Your task to perform on an android device: toggle priority inbox in the gmail app Image 0: 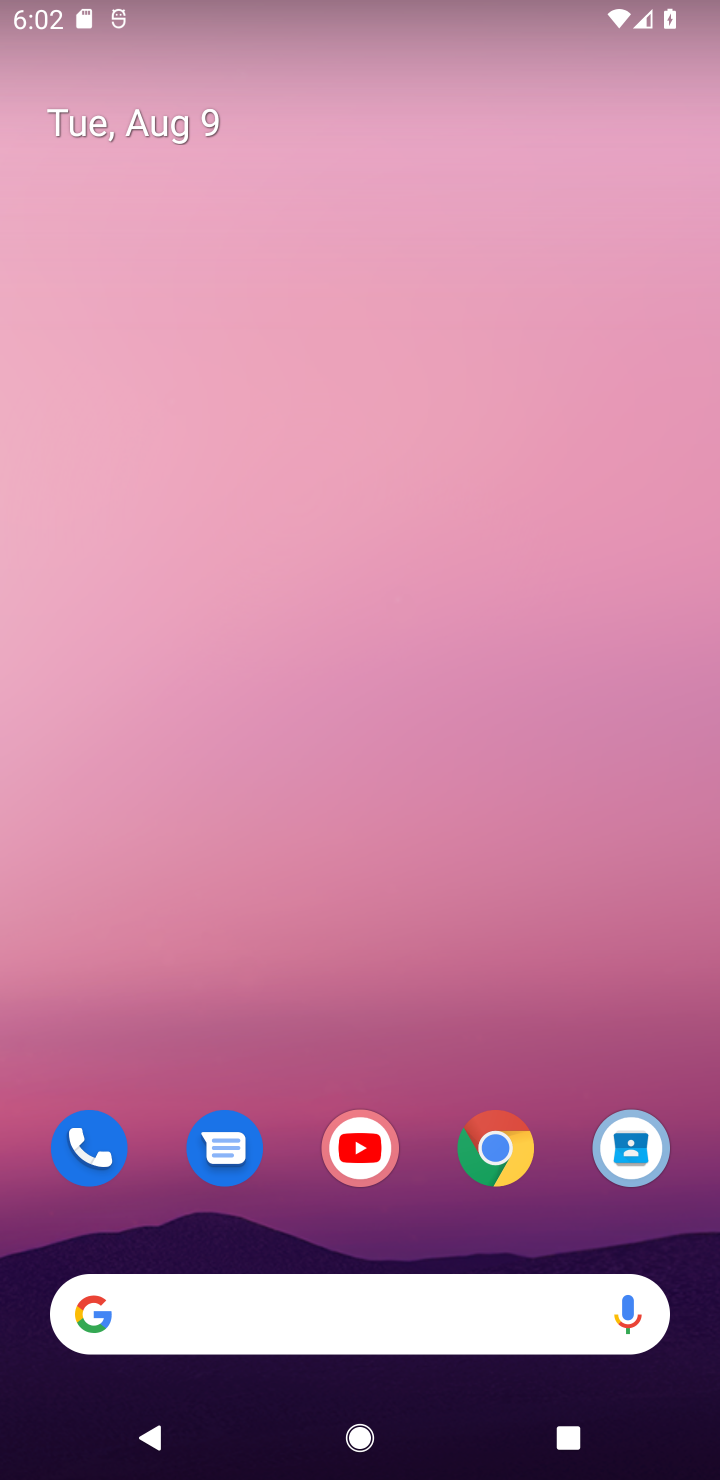
Step 0: drag from (278, 1250) to (582, 1)
Your task to perform on an android device: toggle priority inbox in the gmail app Image 1: 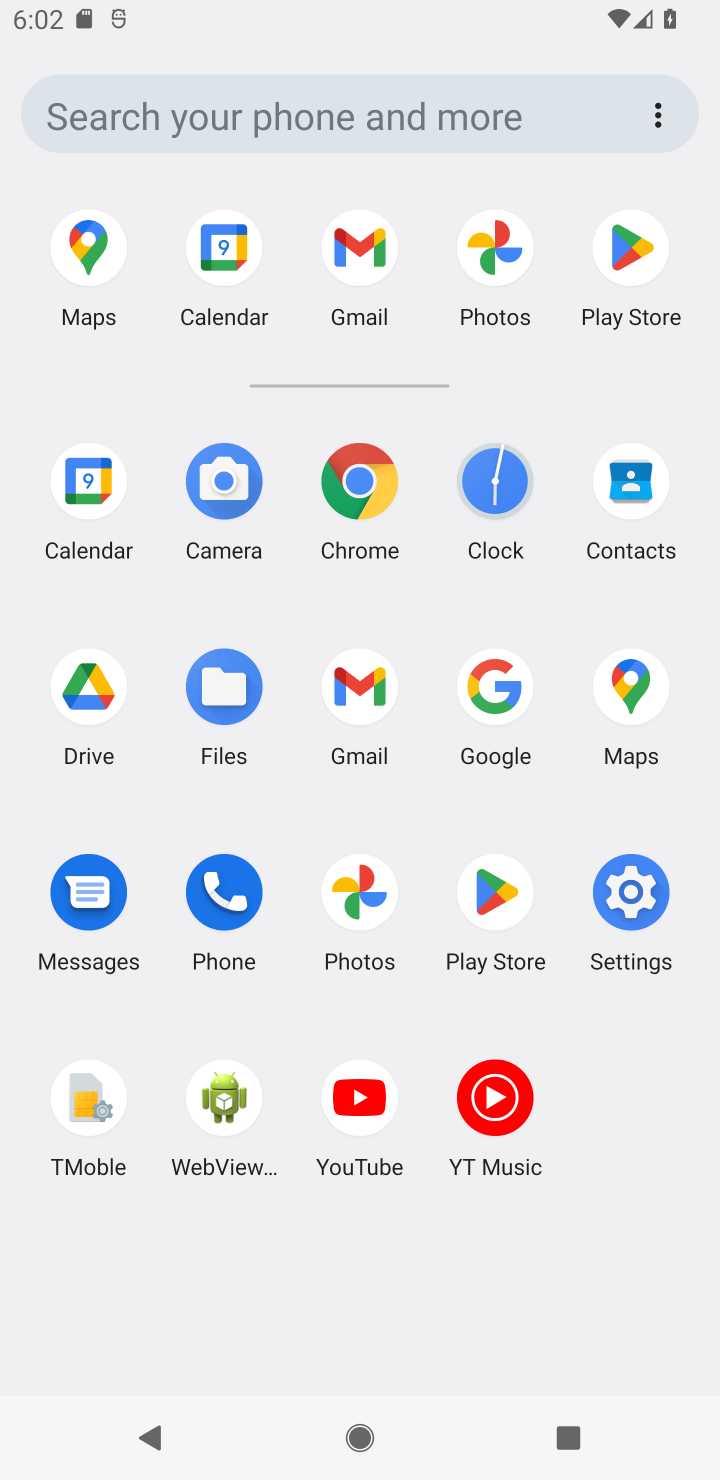
Step 1: click (359, 709)
Your task to perform on an android device: toggle priority inbox in the gmail app Image 2: 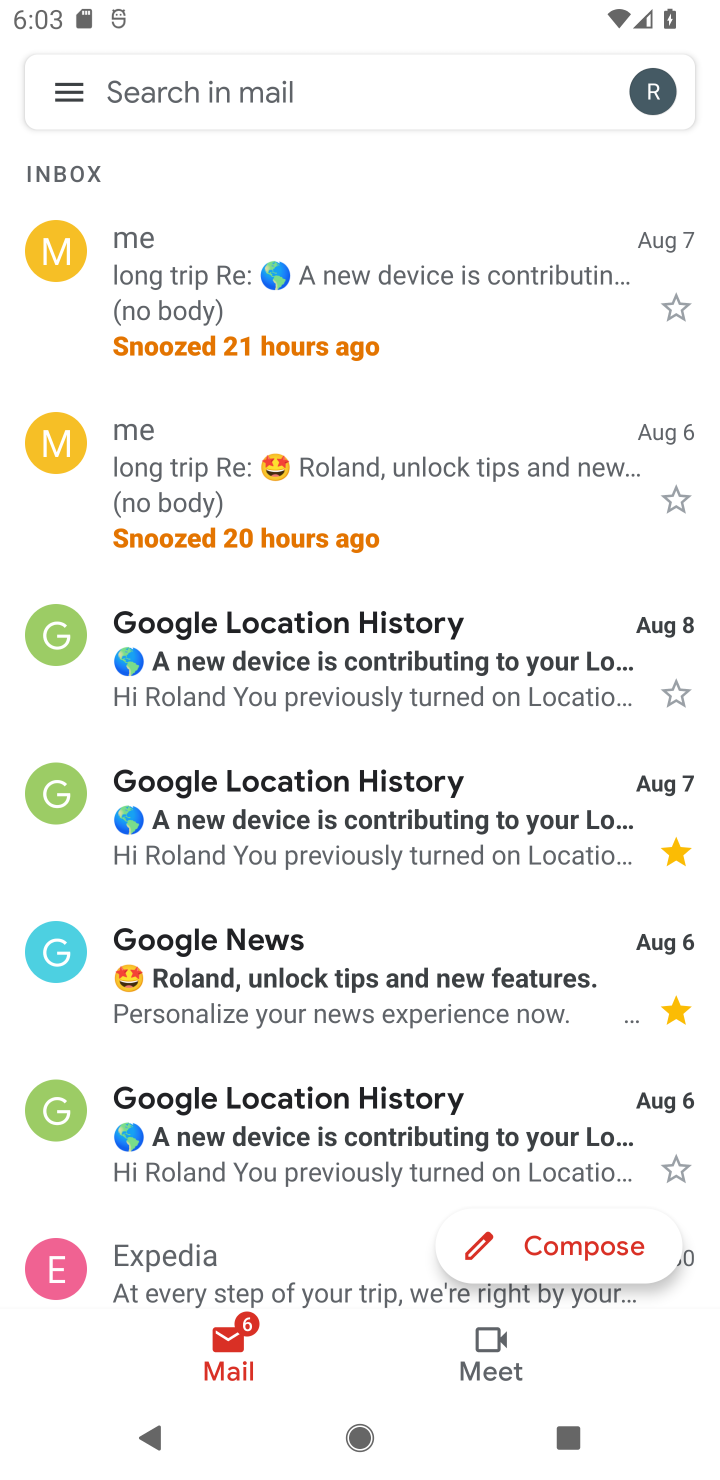
Step 2: click (87, 97)
Your task to perform on an android device: toggle priority inbox in the gmail app Image 3: 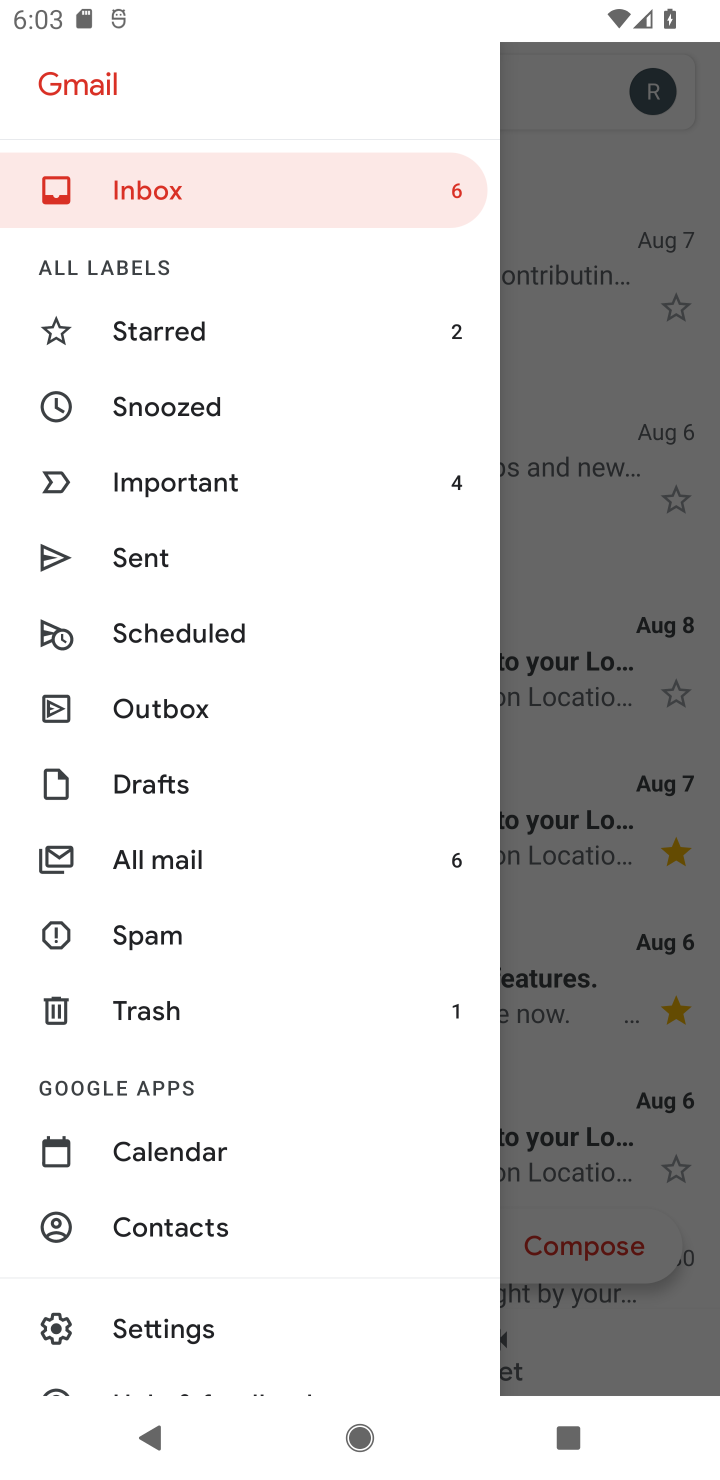
Step 3: click (142, 1322)
Your task to perform on an android device: toggle priority inbox in the gmail app Image 4: 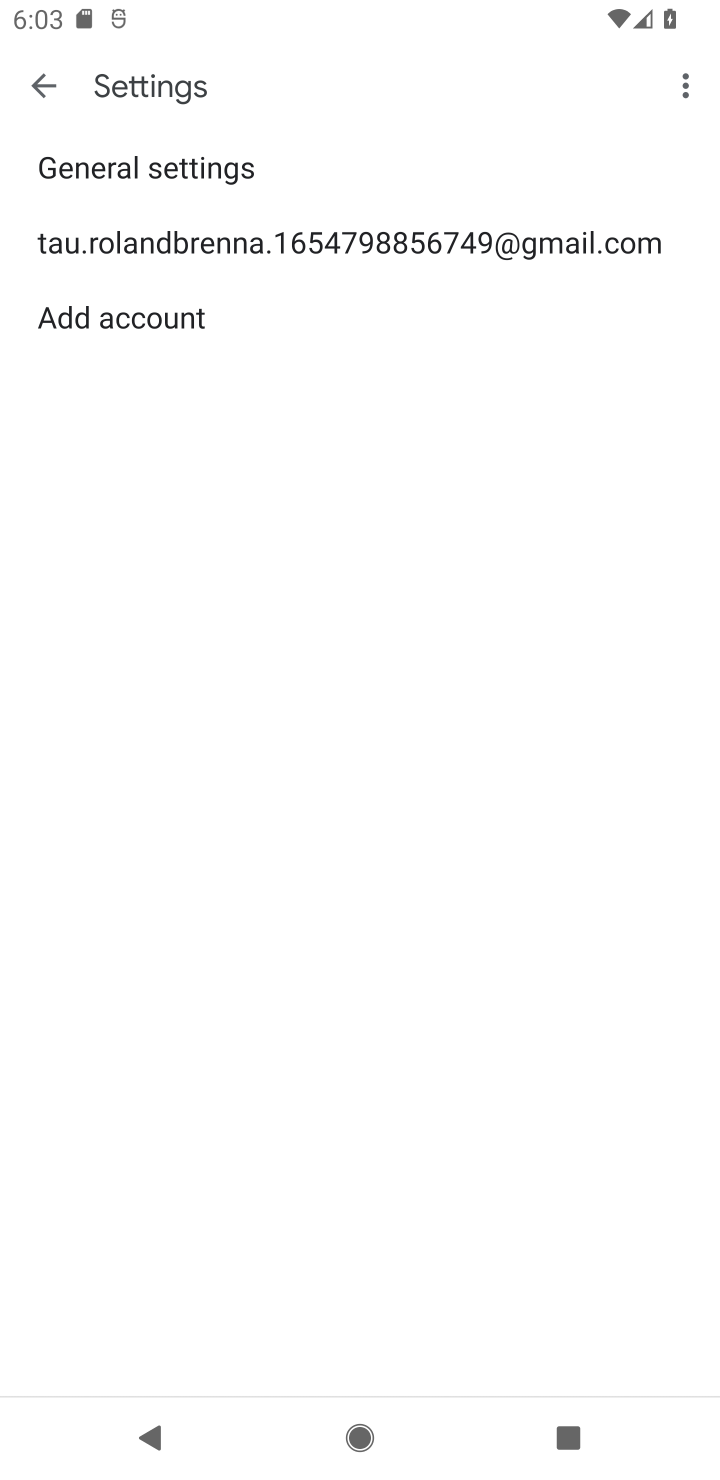
Step 4: click (192, 232)
Your task to perform on an android device: toggle priority inbox in the gmail app Image 5: 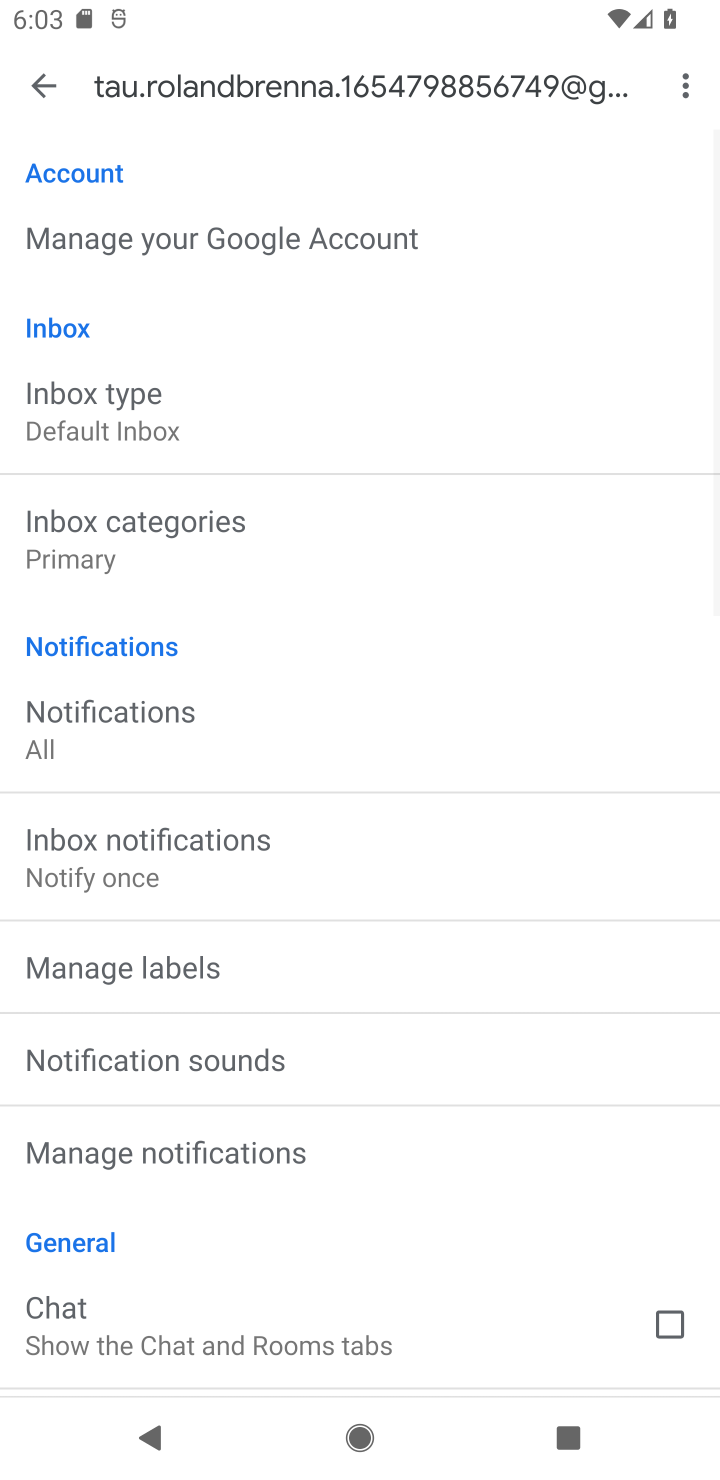
Step 5: click (175, 392)
Your task to perform on an android device: toggle priority inbox in the gmail app Image 6: 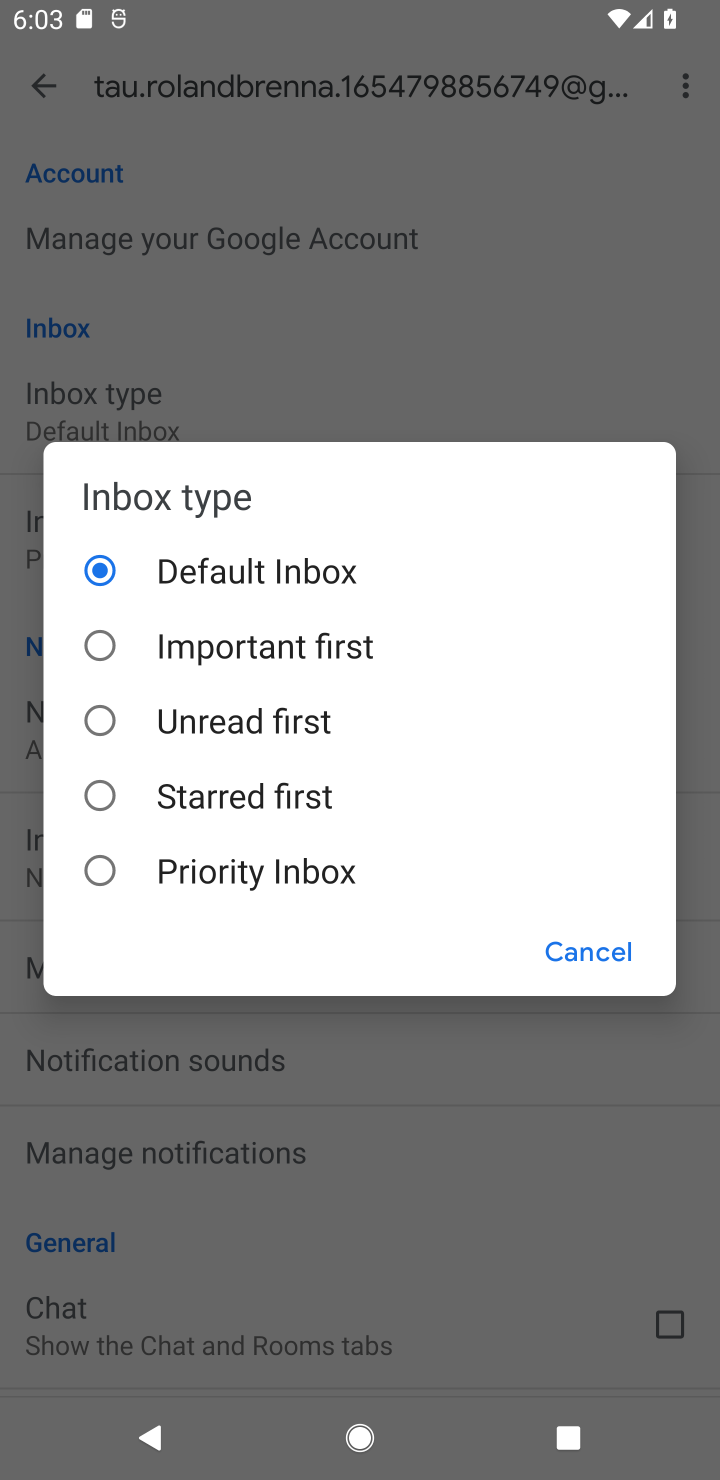
Step 6: click (225, 875)
Your task to perform on an android device: toggle priority inbox in the gmail app Image 7: 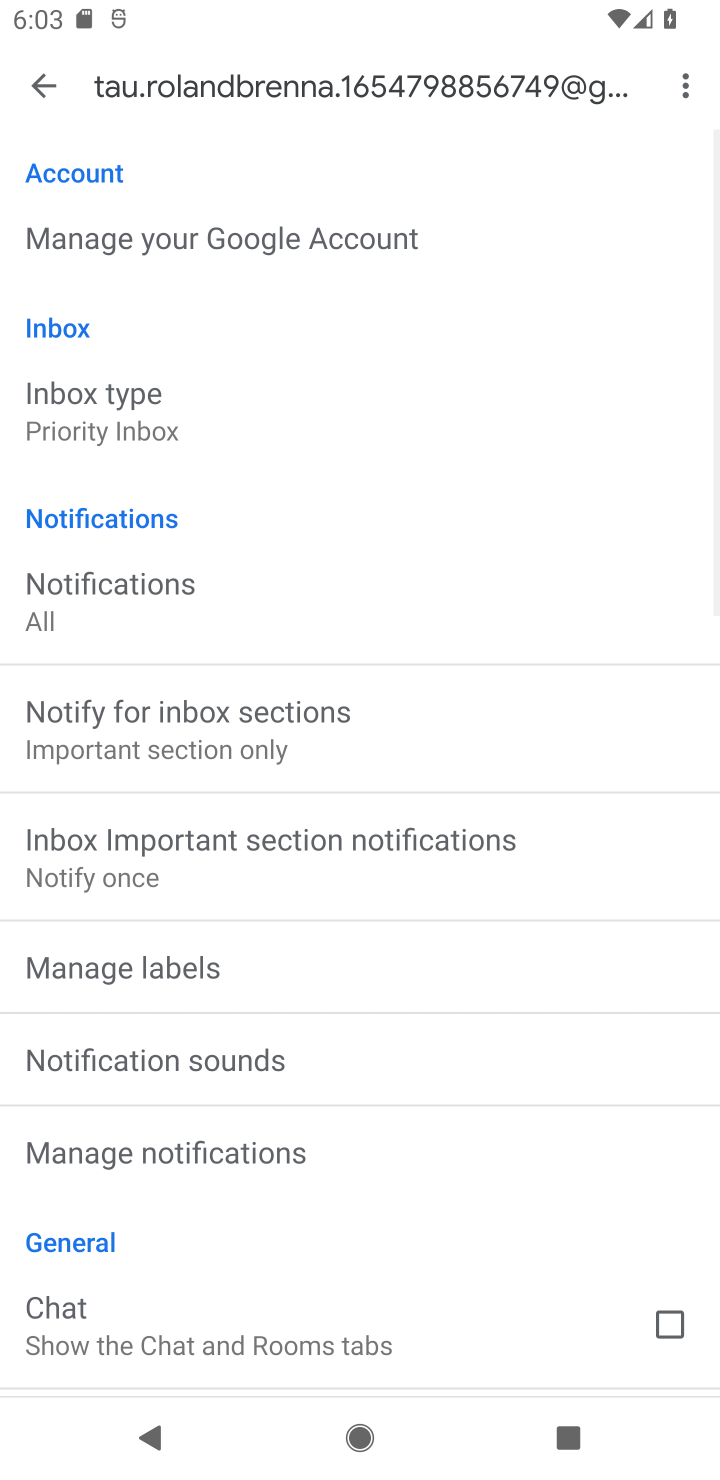
Step 7: task complete